Your task to perform on an android device: Go to accessibility settings Image 0: 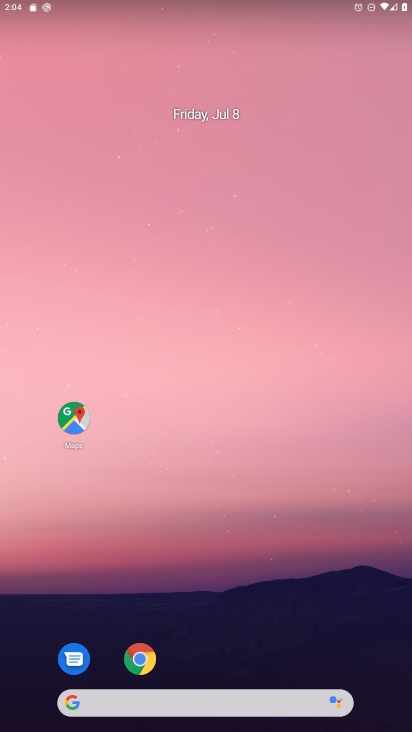
Step 0: drag from (233, 663) to (226, 87)
Your task to perform on an android device: Go to accessibility settings Image 1: 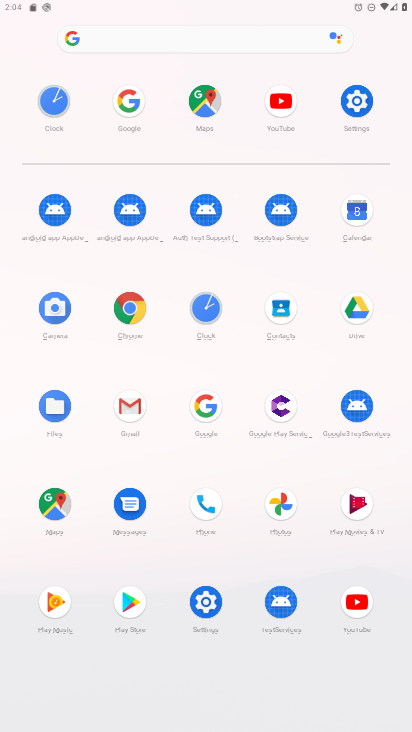
Step 1: click (353, 100)
Your task to perform on an android device: Go to accessibility settings Image 2: 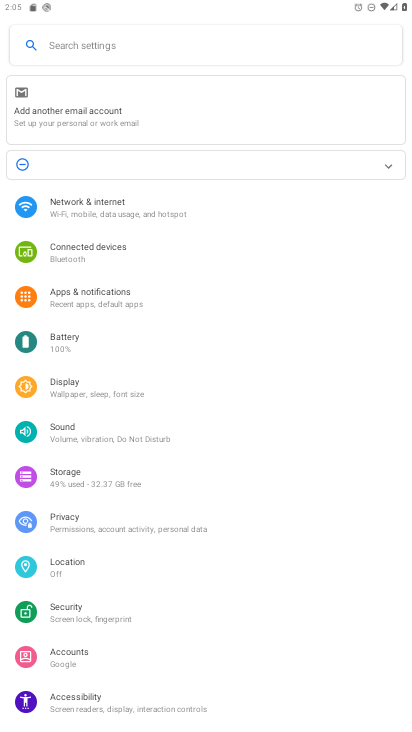
Step 2: drag from (113, 408) to (136, 328)
Your task to perform on an android device: Go to accessibility settings Image 3: 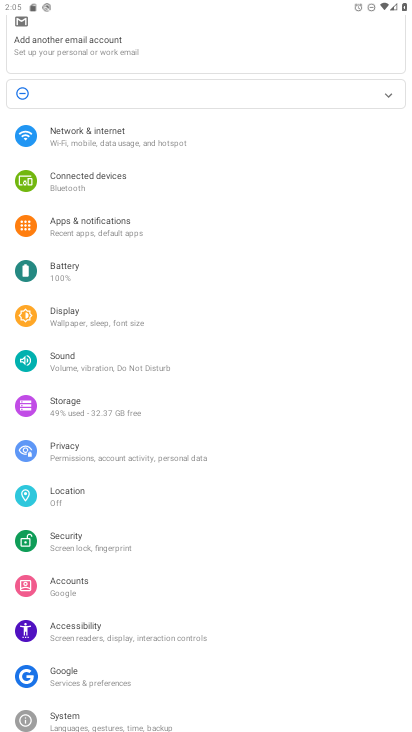
Step 3: drag from (97, 490) to (159, 383)
Your task to perform on an android device: Go to accessibility settings Image 4: 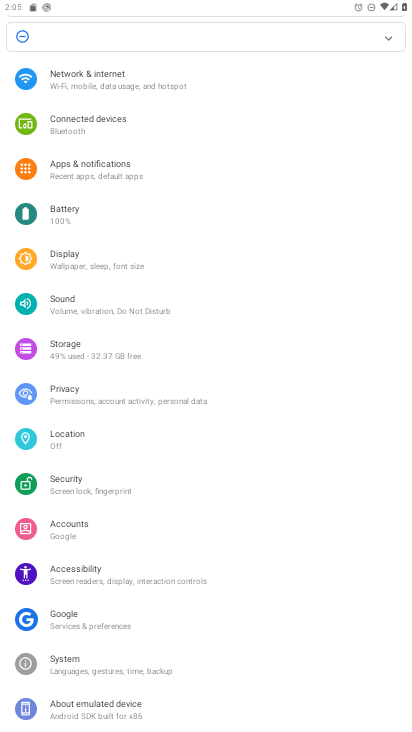
Step 4: click (50, 572)
Your task to perform on an android device: Go to accessibility settings Image 5: 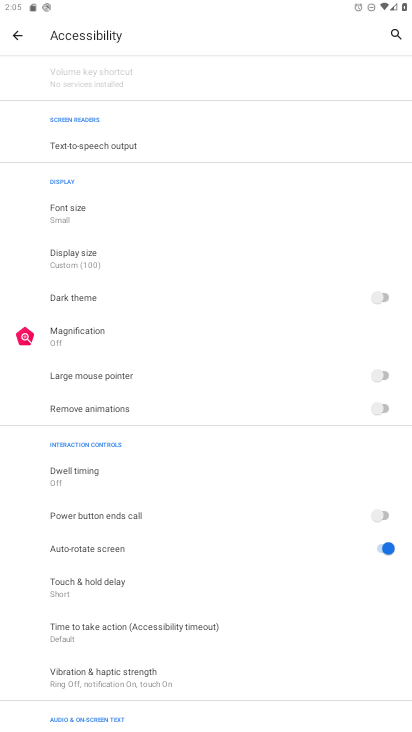
Step 5: task complete